Your task to perform on an android device: View the shopping cart on target.com. Search for macbook pro 13 inch on target.com, select the first entry, add it to the cart, then select checkout. Image 0: 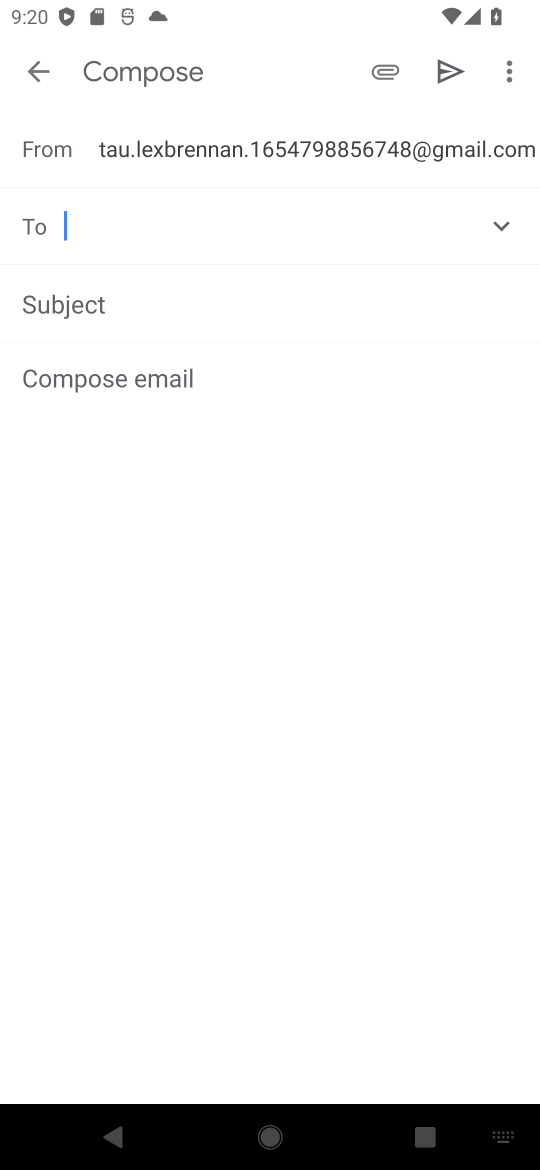
Step 0: press home button
Your task to perform on an android device: View the shopping cart on target.com. Search for macbook pro 13 inch on target.com, select the first entry, add it to the cart, then select checkout. Image 1: 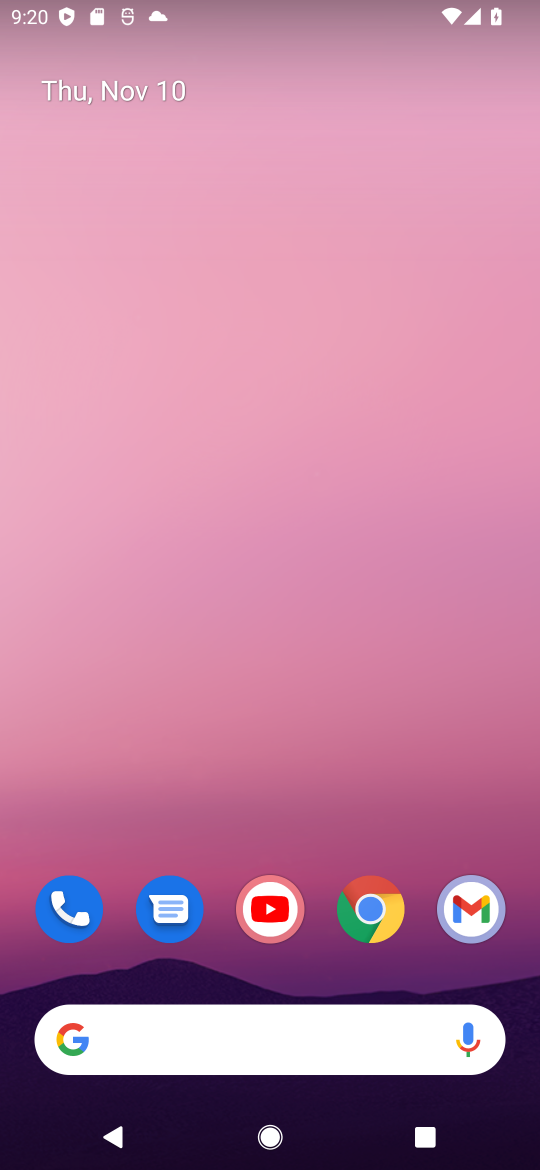
Step 1: drag from (268, 1137) to (251, 412)
Your task to perform on an android device: View the shopping cart on target.com. Search for macbook pro 13 inch on target.com, select the first entry, add it to the cart, then select checkout. Image 2: 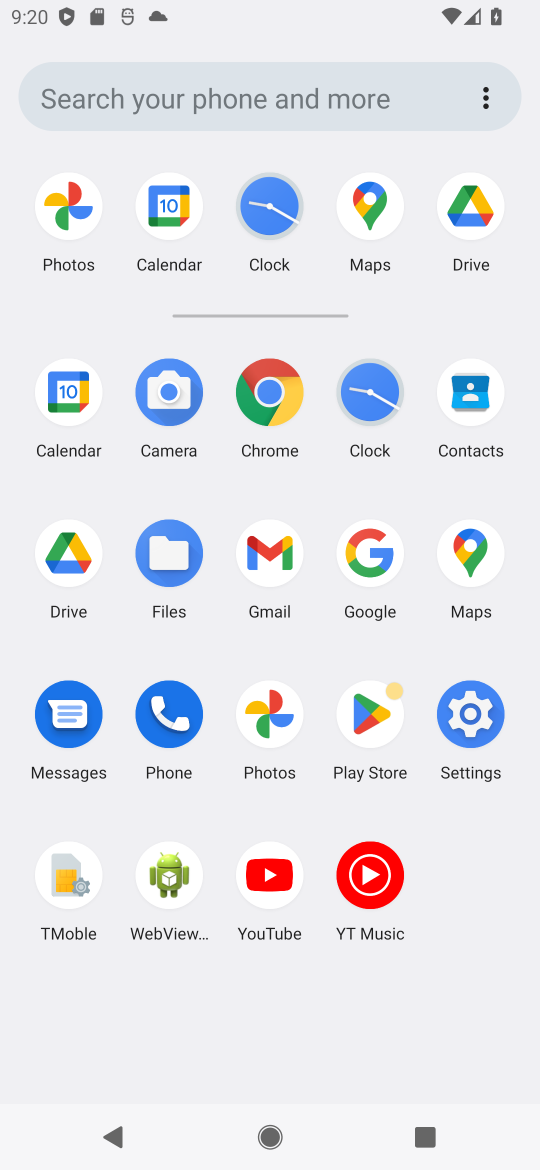
Step 2: click (341, 562)
Your task to perform on an android device: View the shopping cart on target.com. Search for macbook pro 13 inch on target.com, select the first entry, add it to the cart, then select checkout. Image 3: 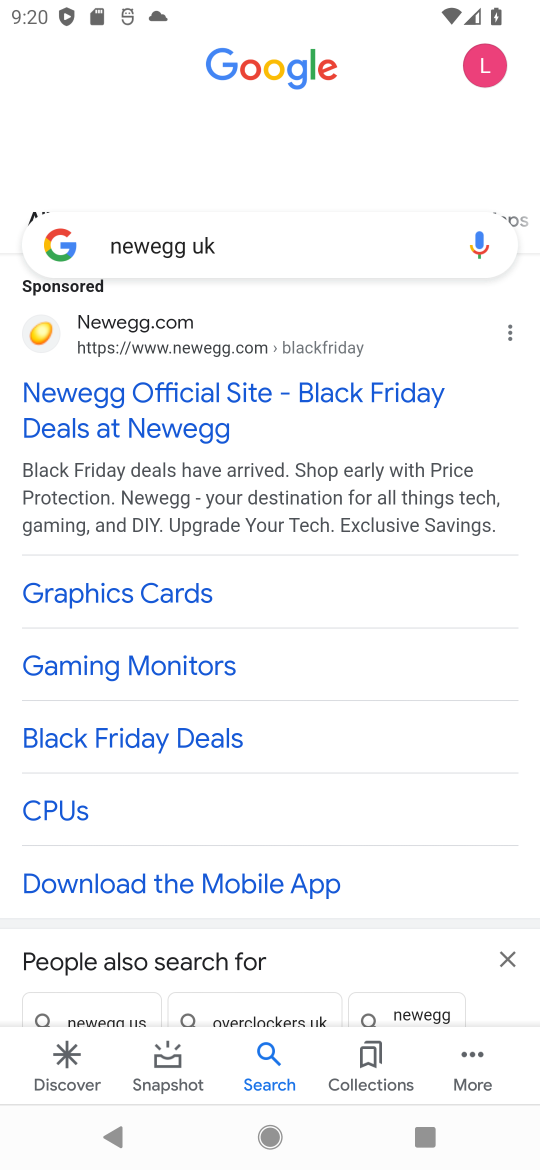
Step 3: click (234, 230)
Your task to perform on an android device: View the shopping cart on target.com. Search for macbook pro 13 inch on target.com, select the first entry, add it to the cart, then select checkout. Image 4: 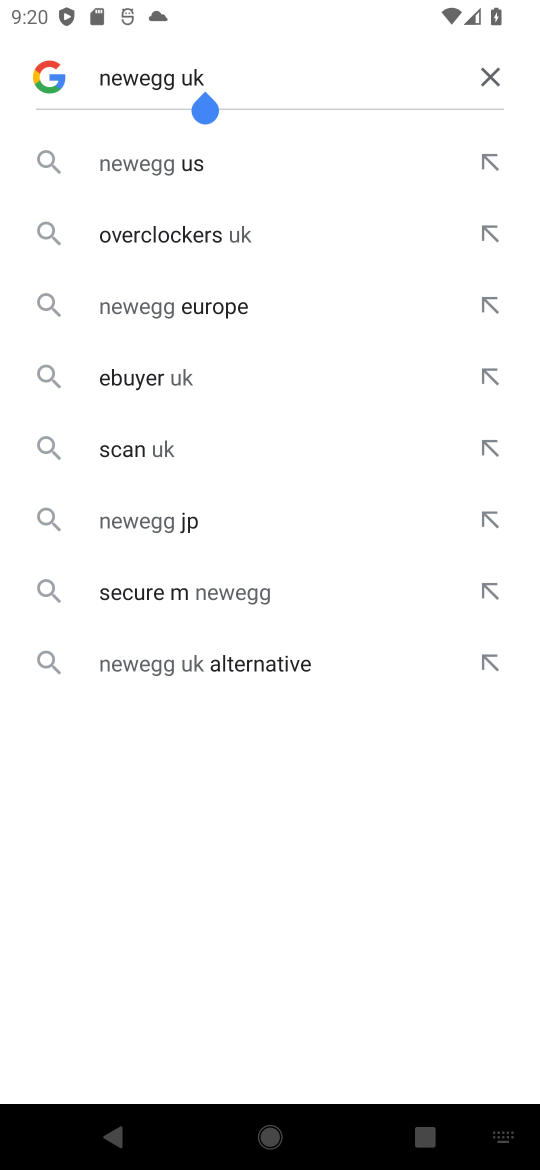
Step 4: click (488, 71)
Your task to perform on an android device: View the shopping cart on target.com. Search for macbook pro 13 inch on target.com, select the first entry, add it to the cart, then select checkout. Image 5: 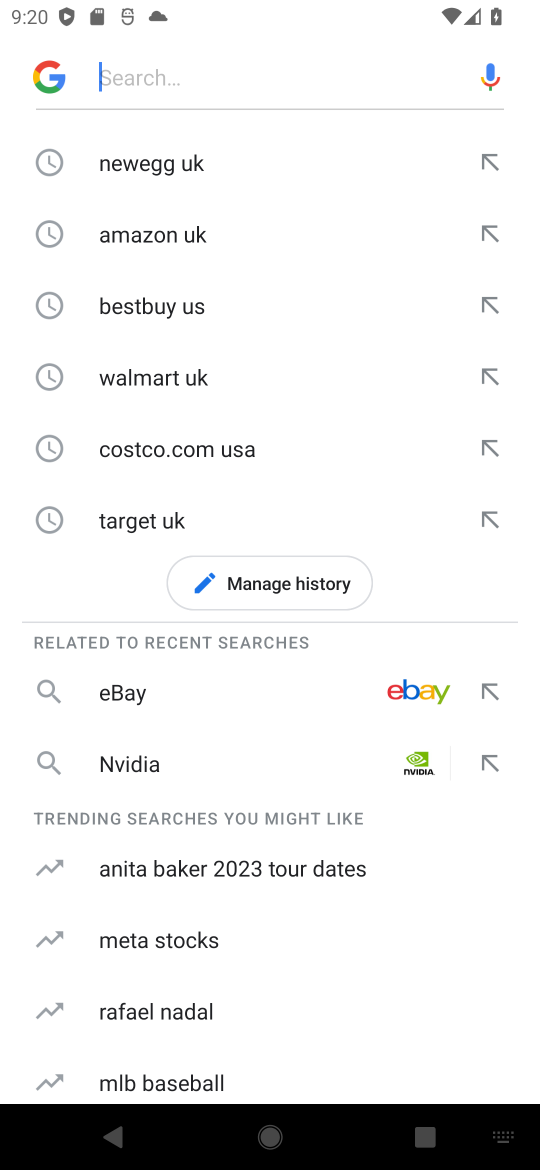
Step 5: click (101, 507)
Your task to perform on an android device: View the shopping cart on target.com. Search for macbook pro 13 inch on target.com, select the first entry, add it to the cart, then select checkout. Image 6: 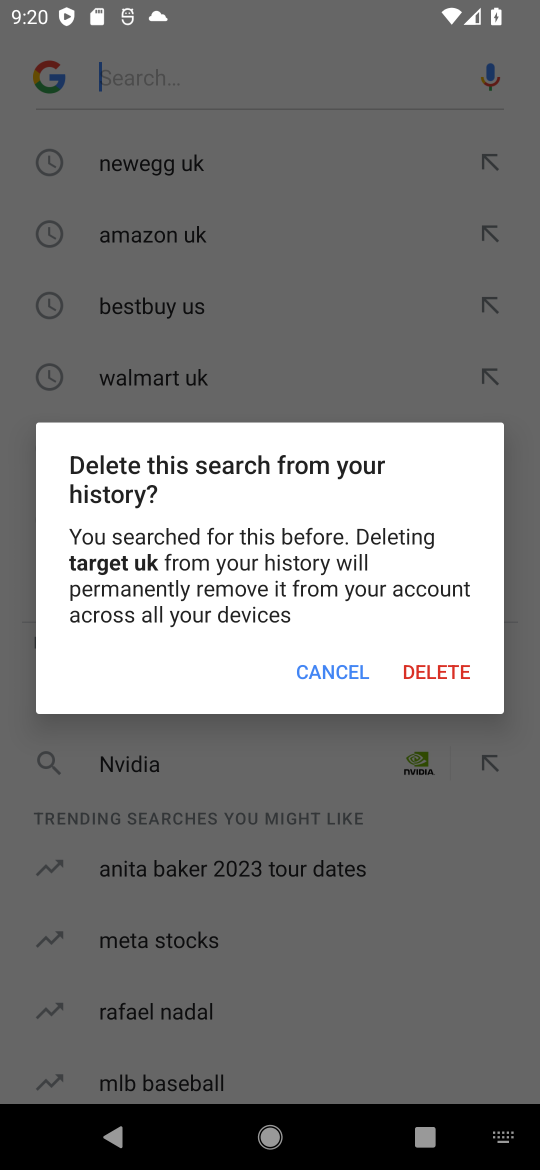
Step 6: click (351, 668)
Your task to perform on an android device: View the shopping cart on target.com. Search for macbook pro 13 inch on target.com, select the first entry, add it to the cart, then select checkout. Image 7: 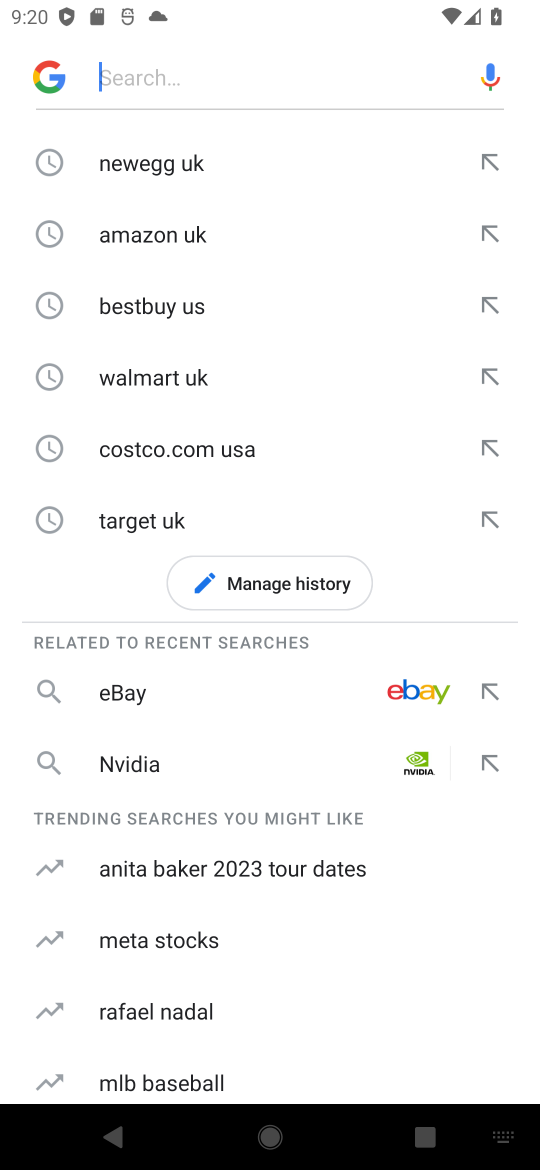
Step 7: click (225, 60)
Your task to perform on an android device: View the shopping cart on target.com. Search for macbook pro 13 inch on target.com, select the first entry, add it to the cart, then select checkout. Image 8: 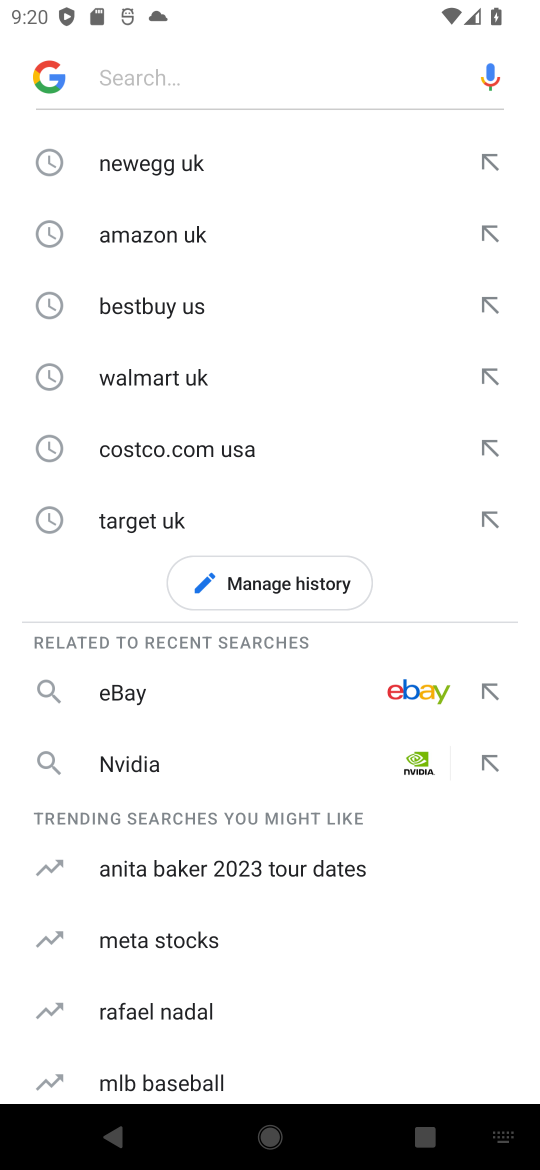
Step 8: type "target  "
Your task to perform on an android device: View the shopping cart on target.com. Search for macbook pro 13 inch on target.com, select the first entry, add it to the cart, then select checkout. Image 9: 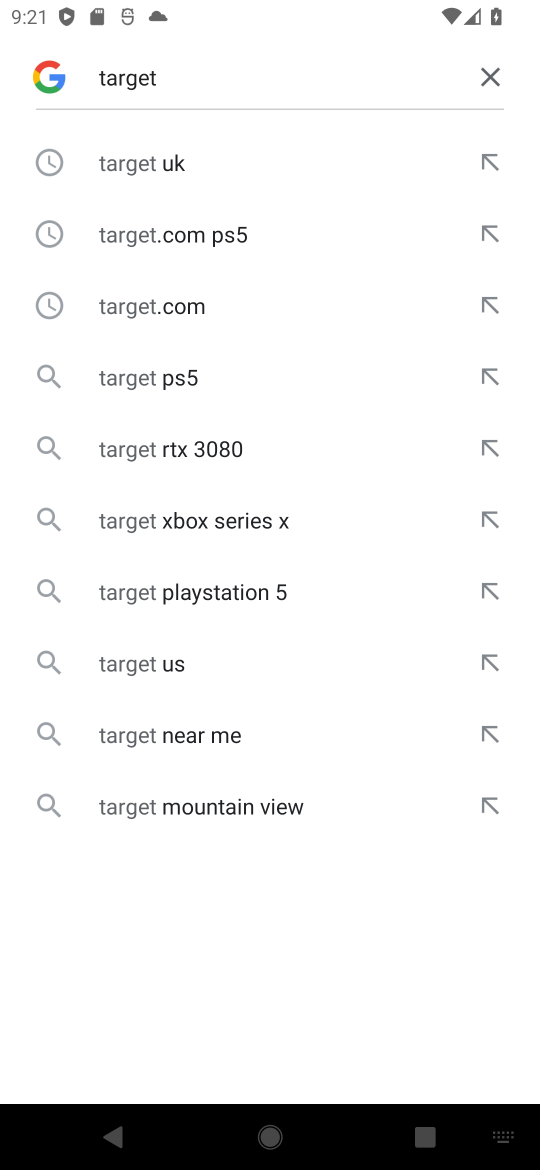
Step 9: click (176, 166)
Your task to perform on an android device: View the shopping cart on target.com. Search for macbook pro 13 inch on target.com, select the first entry, add it to the cart, then select checkout. Image 10: 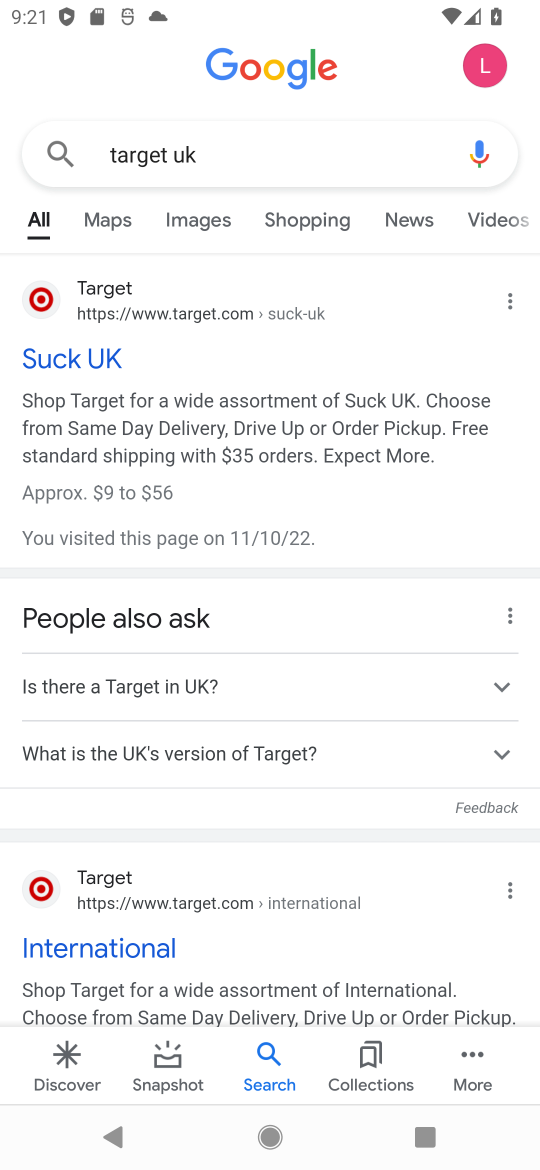
Step 10: click (36, 296)
Your task to perform on an android device: View the shopping cart on target.com. Search for macbook pro 13 inch on target.com, select the first entry, add it to the cart, then select checkout. Image 11: 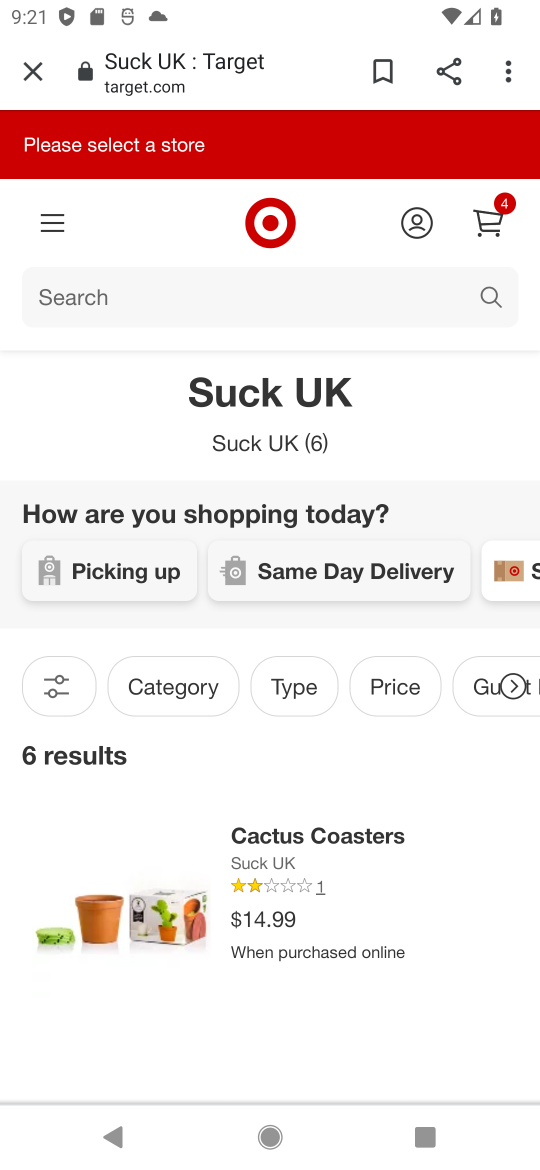
Step 11: click (372, 281)
Your task to perform on an android device: View the shopping cart on target.com. Search for macbook pro 13 inch on target.com, select the first entry, add it to the cart, then select checkout. Image 12: 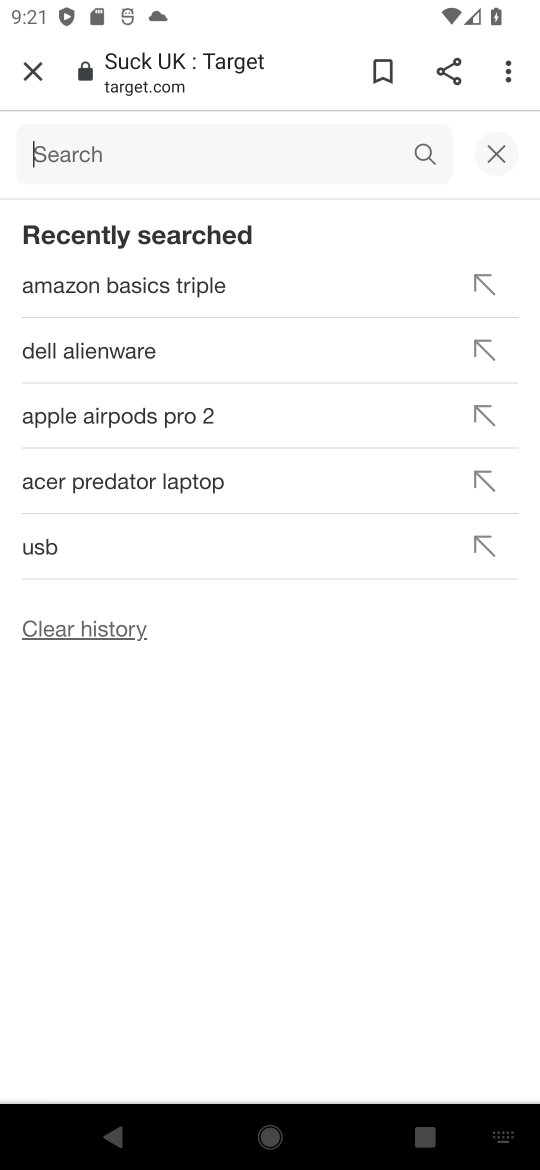
Step 12: type " macbook pro "
Your task to perform on an android device: View the shopping cart on target.com. Search for macbook pro 13 inch on target.com, select the first entry, add it to the cart, then select checkout. Image 13: 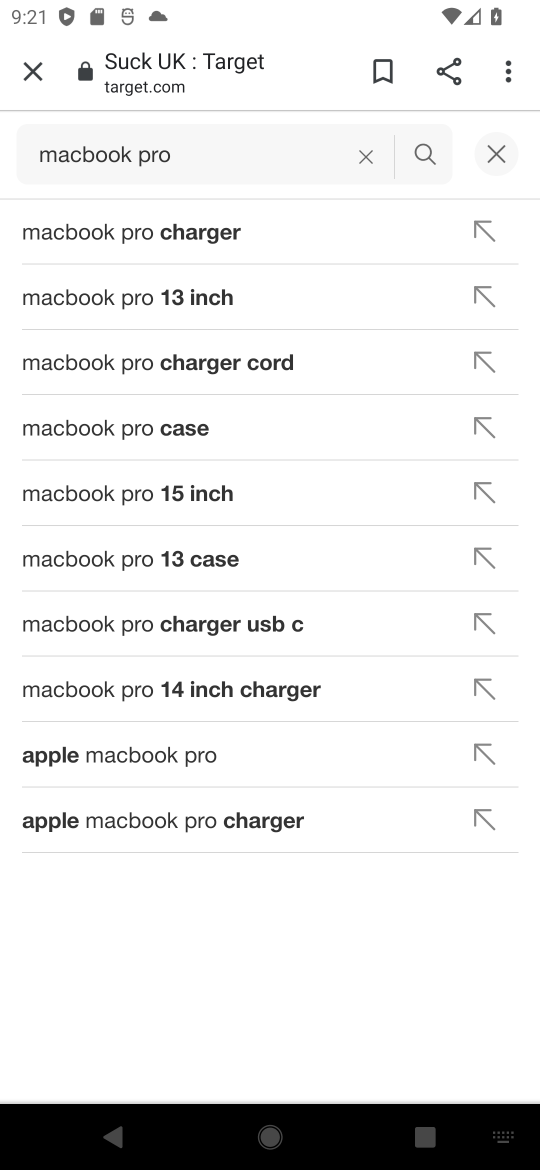
Step 13: click (199, 296)
Your task to perform on an android device: View the shopping cart on target.com. Search for macbook pro 13 inch on target.com, select the first entry, add it to the cart, then select checkout. Image 14: 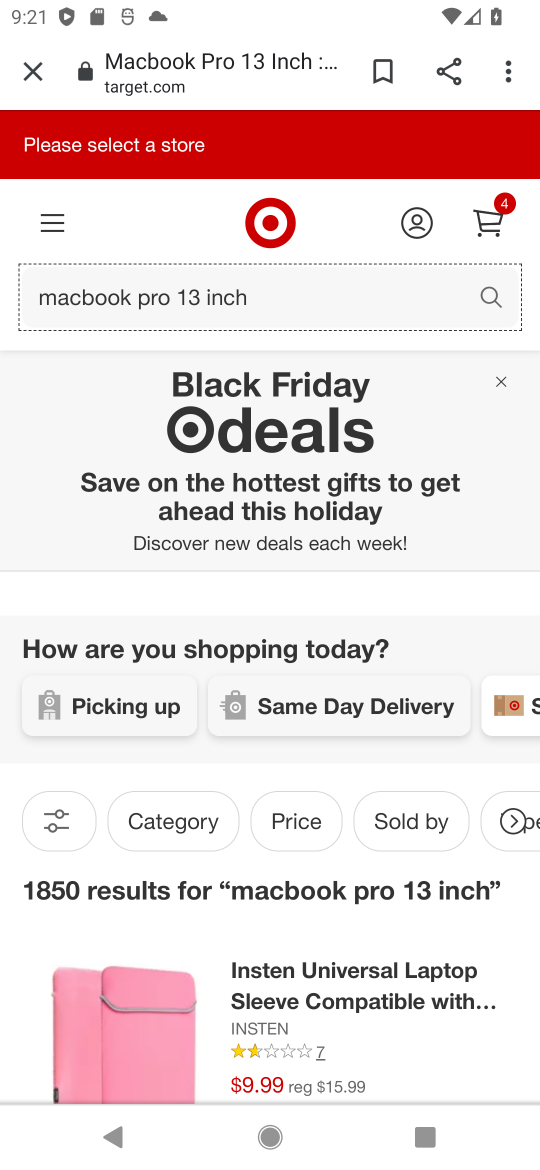
Step 14: click (272, 303)
Your task to perform on an android device: View the shopping cart on target.com. Search for macbook pro 13 inch on target.com, select the first entry, add it to the cart, then select checkout. Image 15: 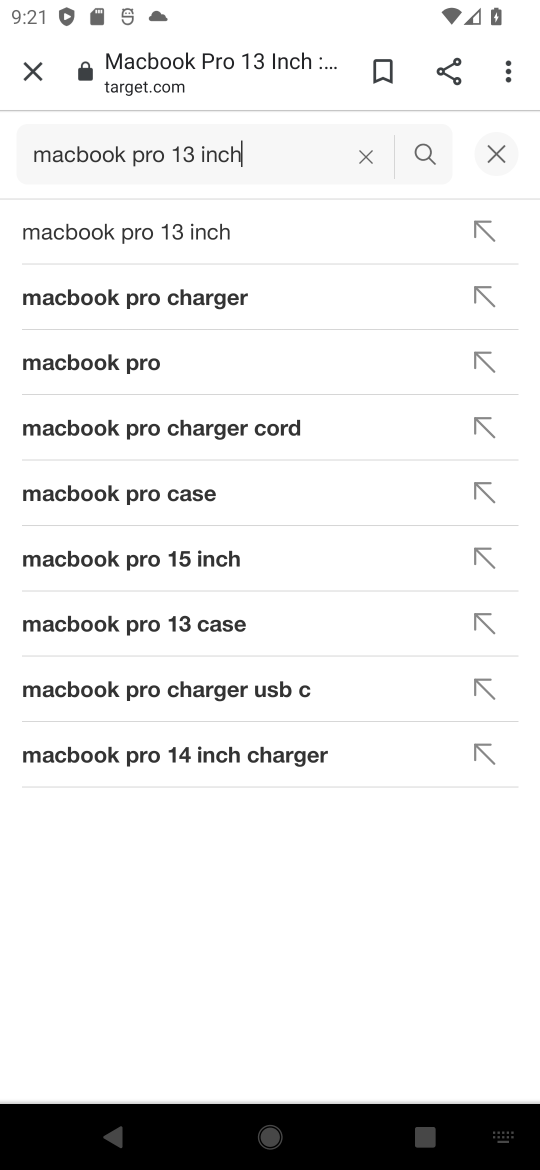
Step 15: click (48, 351)
Your task to perform on an android device: View the shopping cart on target.com. Search for macbook pro 13 inch on target.com, select the first entry, add it to the cart, then select checkout. Image 16: 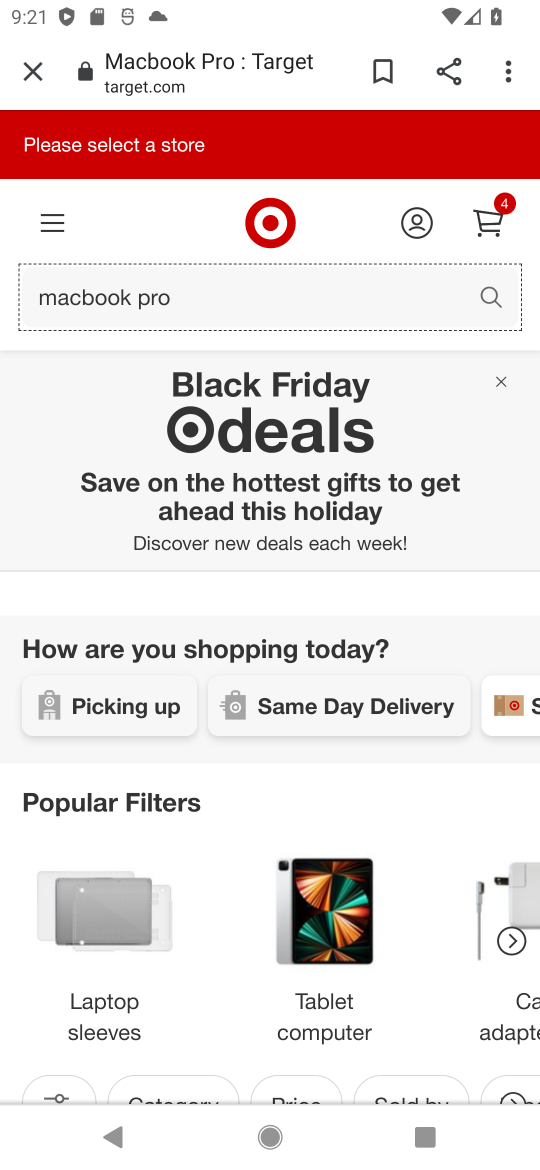
Step 16: drag from (259, 1046) to (322, 324)
Your task to perform on an android device: View the shopping cart on target.com. Search for macbook pro 13 inch on target.com, select the first entry, add it to the cart, then select checkout. Image 17: 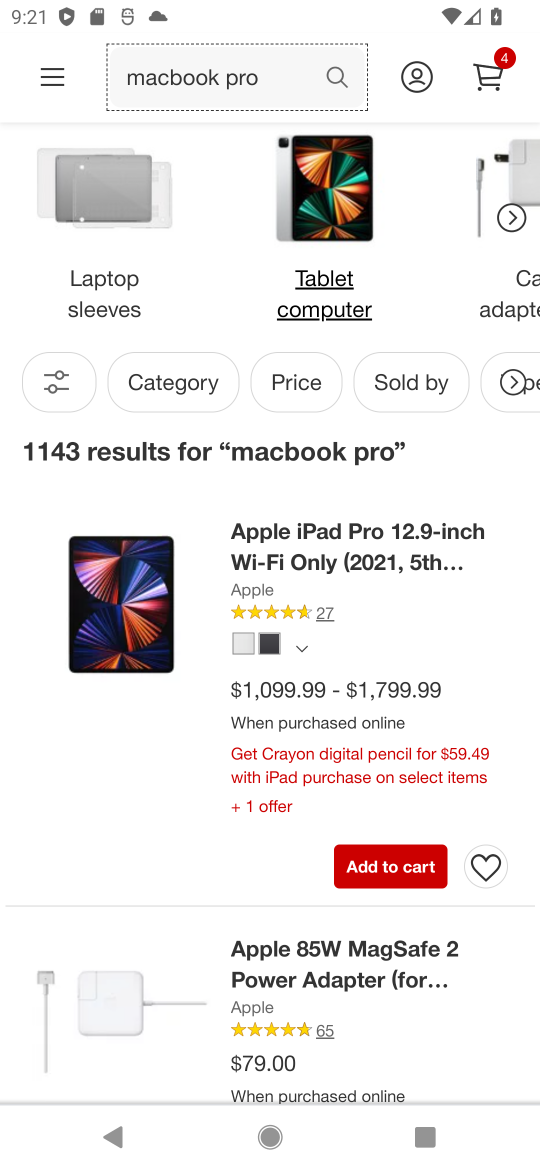
Step 17: drag from (363, 866) to (0, 591)
Your task to perform on an android device: View the shopping cart on target.com. Search for macbook pro 13 inch on target.com, select the first entry, add it to the cart, then select checkout. Image 18: 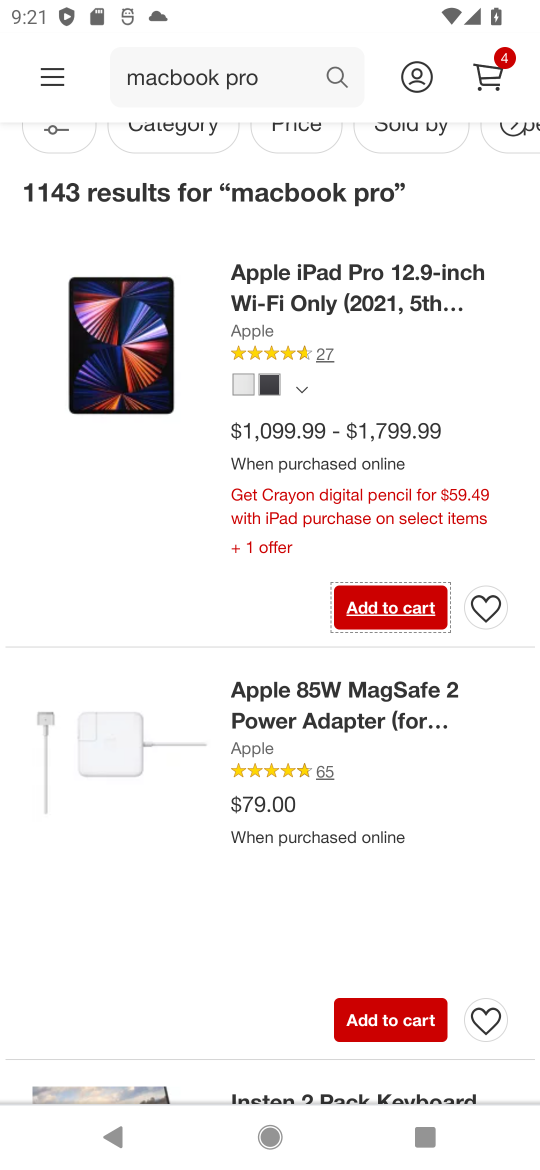
Step 18: drag from (406, 380) to (372, 950)
Your task to perform on an android device: View the shopping cart on target.com. Search for macbook pro 13 inch on target.com, select the first entry, add it to the cart, then select checkout. Image 19: 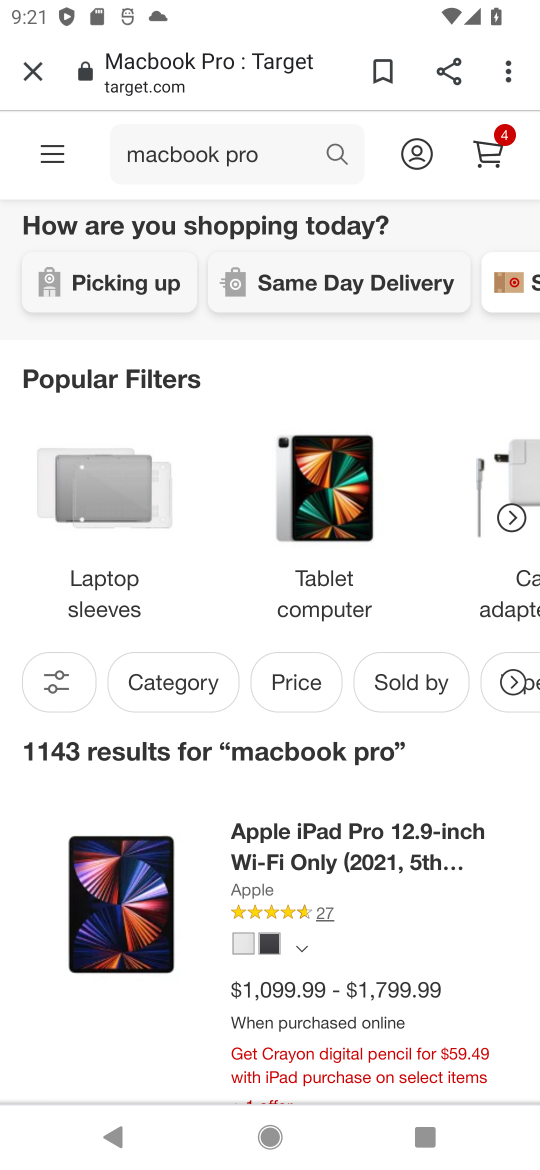
Step 19: click (60, 670)
Your task to perform on an android device: View the shopping cart on target.com. Search for macbook pro 13 inch on target.com, select the first entry, add it to the cart, then select checkout. Image 20: 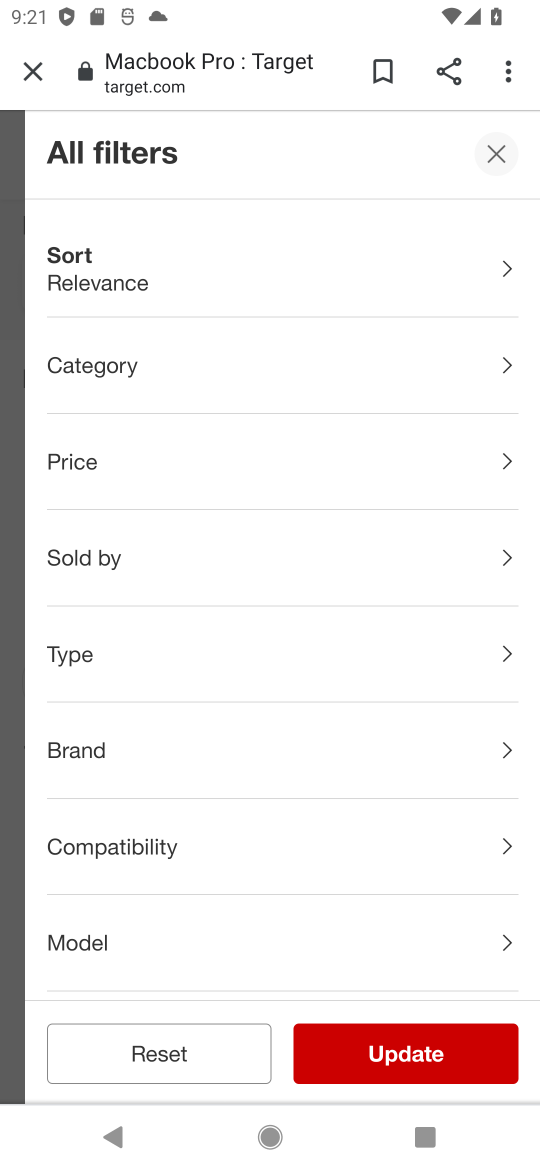
Step 20: click (254, 955)
Your task to perform on an android device: View the shopping cart on target.com. Search for macbook pro 13 inch on target.com, select the first entry, add it to the cart, then select checkout. Image 21: 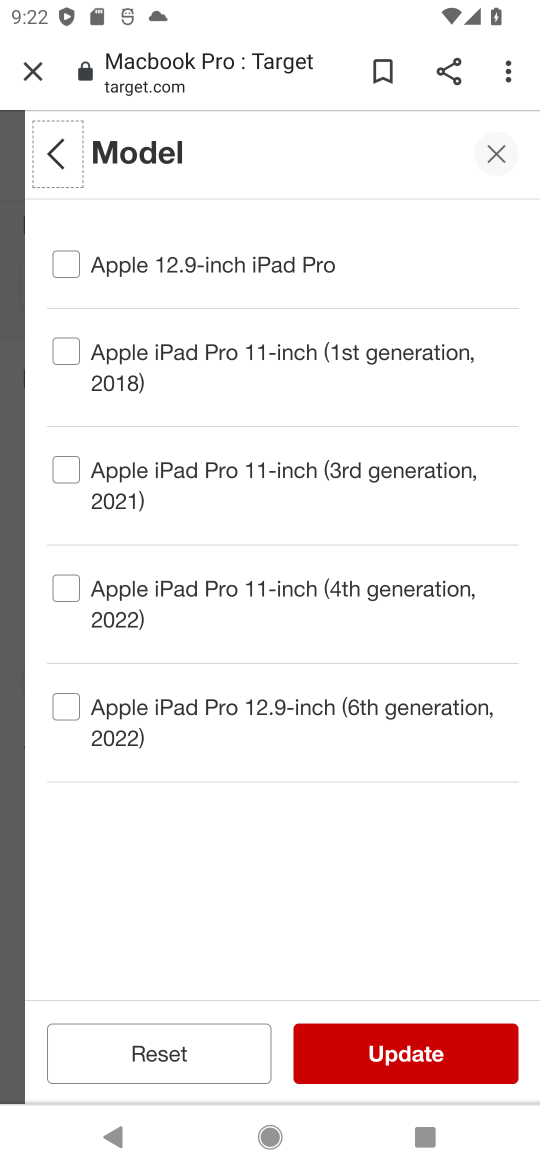
Step 21: click (499, 158)
Your task to perform on an android device: View the shopping cart on target.com. Search for macbook pro 13 inch on target.com, select the first entry, add it to the cart, then select checkout. Image 22: 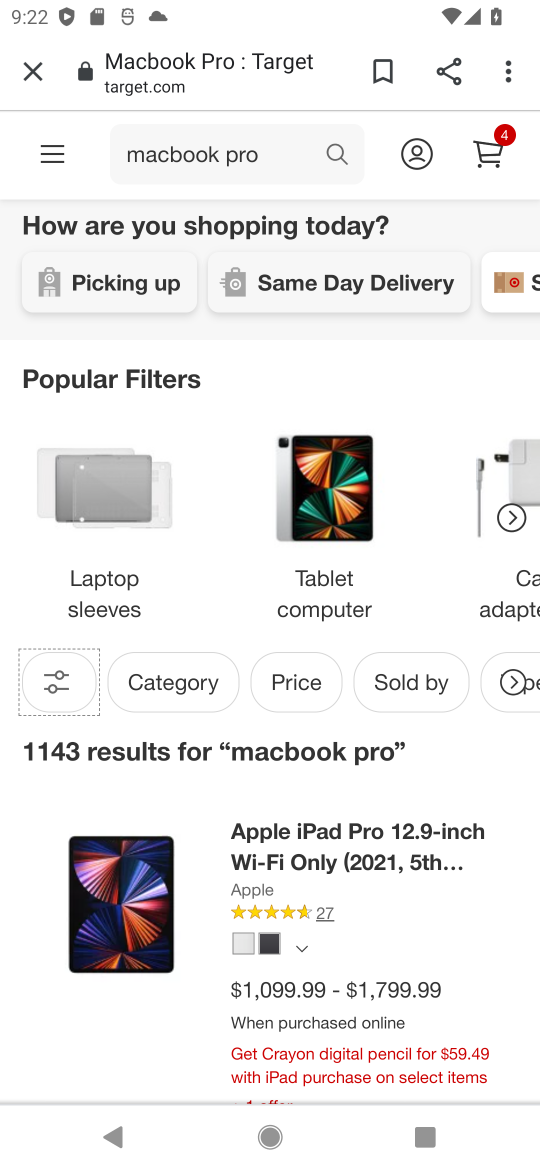
Step 22: drag from (366, 862) to (452, 293)
Your task to perform on an android device: View the shopping cart on target.com. Search for macbook pro 13 inch on target.com, select the first entry, add it to the cart, then select checkout. Image 23: 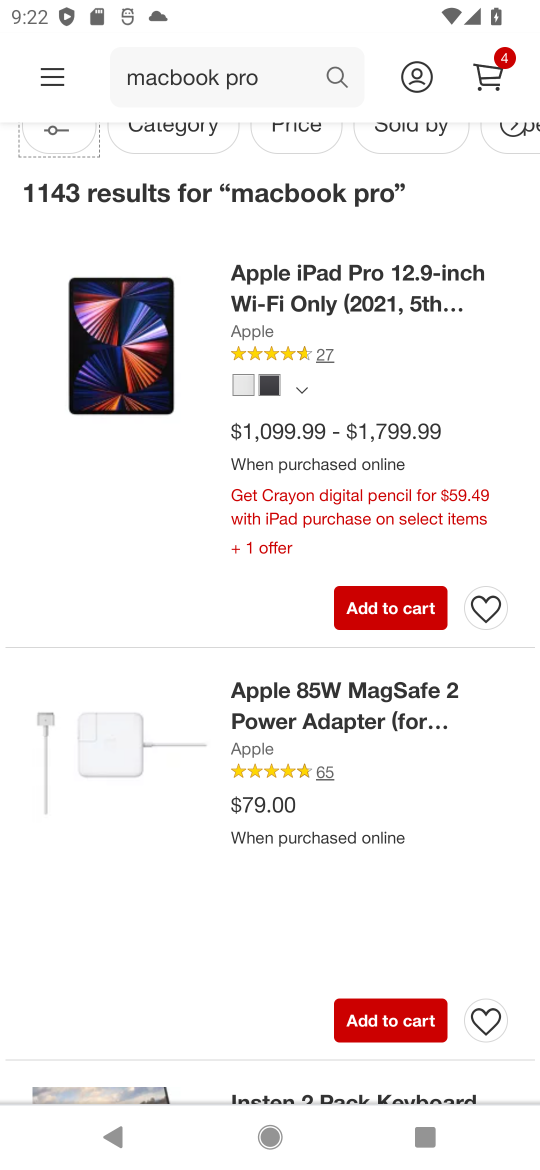
Step 23: click (389, 614)
Your task to perform on an android device: View the shopping cart on target.com. Search for macbook pro 13 inch on target.com, select the first entry, add it to the cart, then select checkout. Image 24: 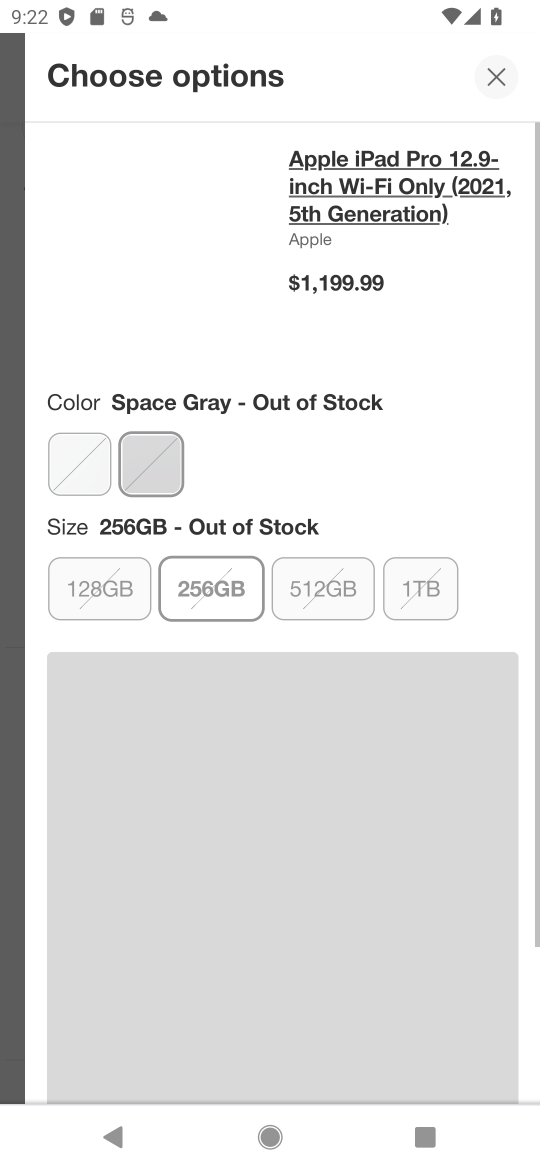
Step 24: task complete